Your task to perform on an android device: What's the weather today? Image 0: 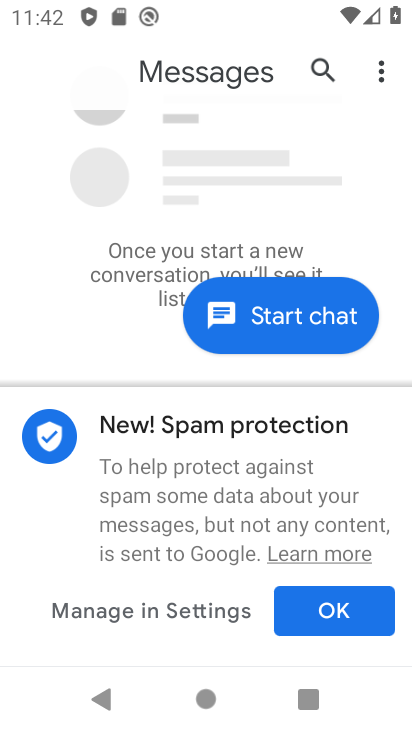
Step 0: press home button
Your task to perform on an android device: What's the weather today? Image 1: 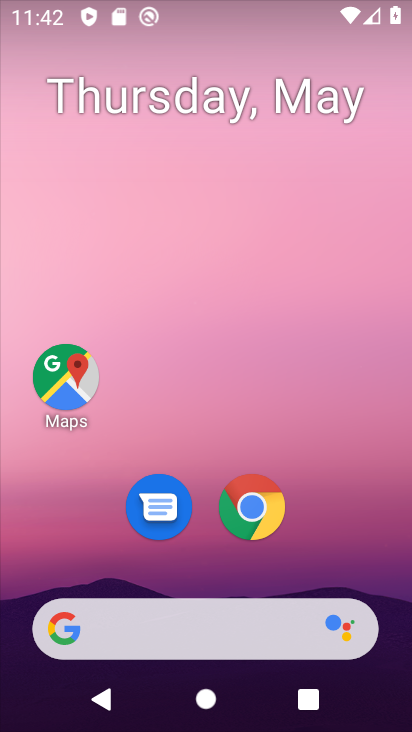
Step 1: drag from (188, 629) to (249, 48)
Your task to perform on an android device: What's the weather today? Image 2: 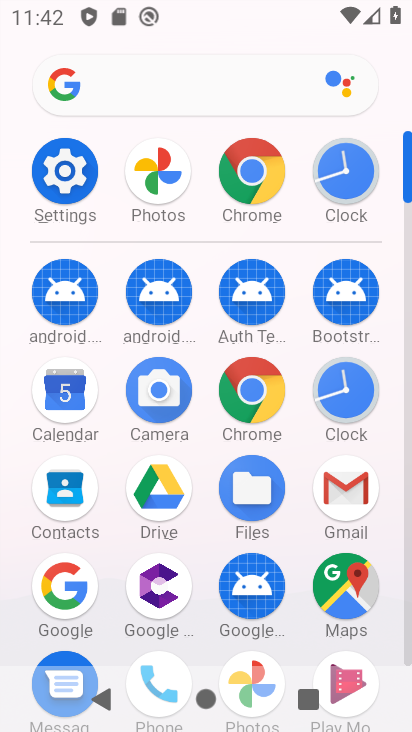
Step 2: click (70, 594)
Your task to perform on an android device: What's the weather today? Image 3: 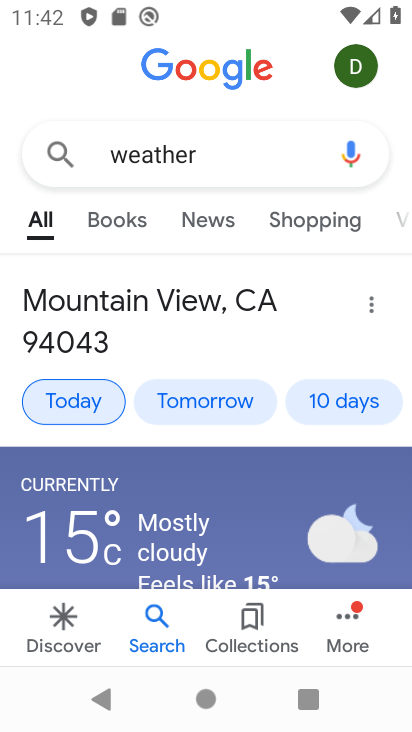
Step 3: task complete